Your task to perform on an android device: turn vacation reply on in the gmail app Image 0: 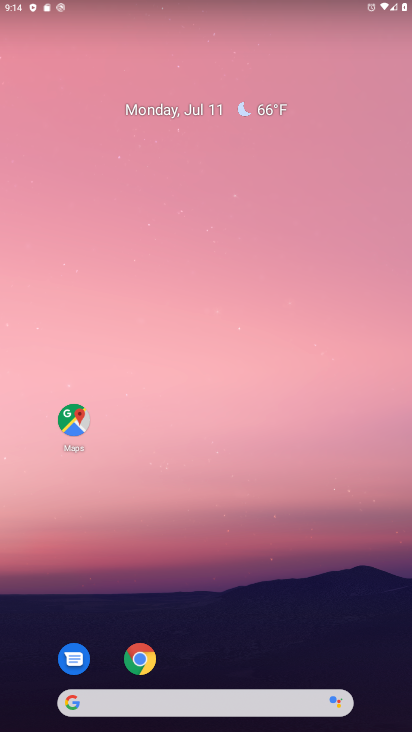
Step 0: drag from (364, 618) to (350, 160)
Your task to perform on an android device: turn vacation reply on in the gmail app Image 1: 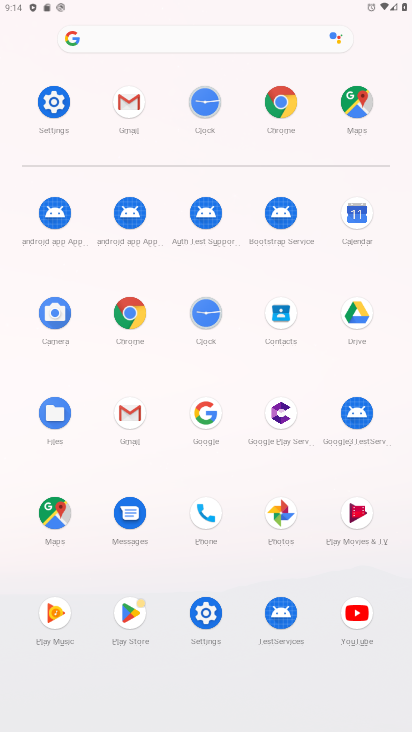
Step 1: click (136, 413)
Your task to perform on an android device: turn vacation reply on in the gmail app Image 2: 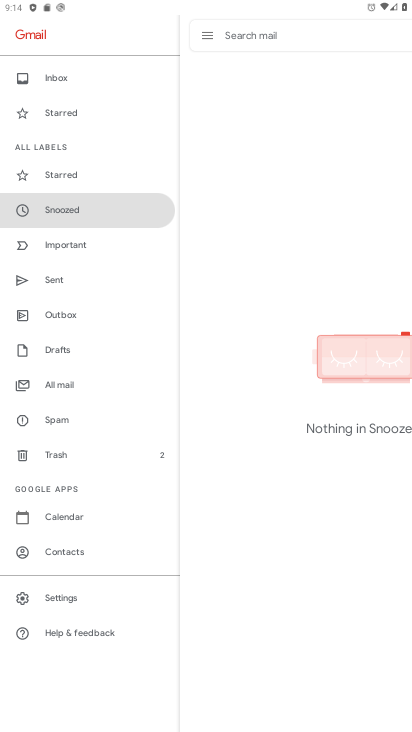
Step 2: click (75, 601)
Your task to perform on an android device: turn vacation reply on in the gmail app Image 3: 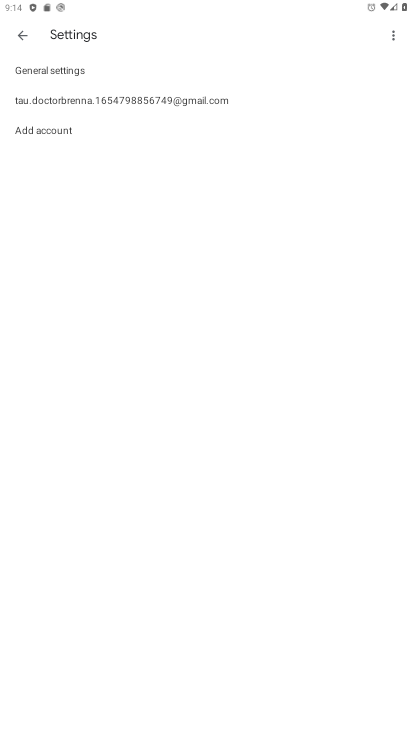
Step 3: click (111, 96)
Your task to perform on an android device: turn vacation reply on in the gmail app Image 4: 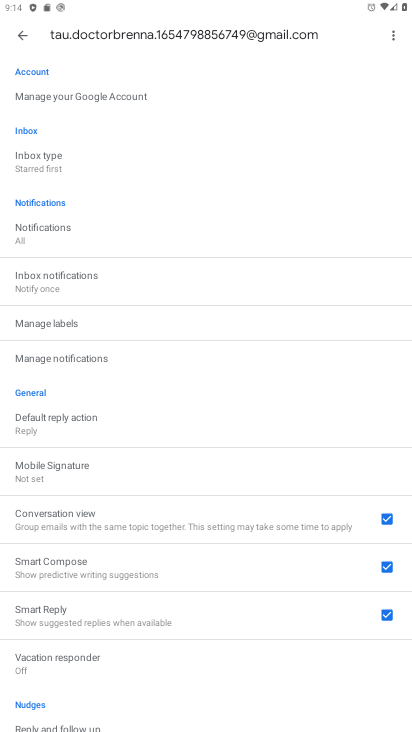
Step 4: drag from (263, 375) to (282, 286)
Your task to perform on an android device: turn vacation reply on in the gmail app Image 5: 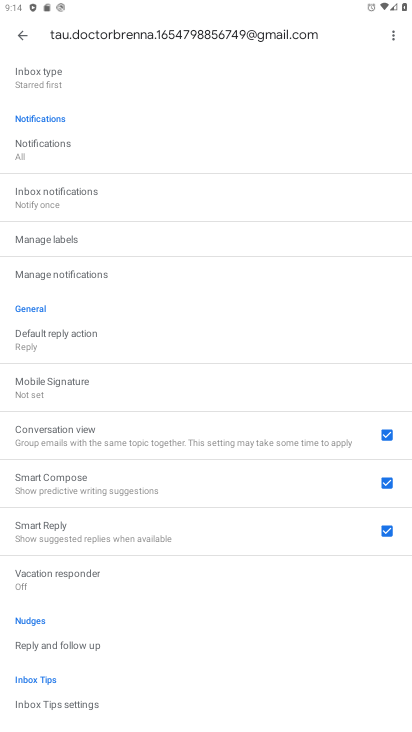
Step 5: drag from (286, 485) to (312, 372)
Your task to perform on an android device: turn vacation reply on in the gmail app Image 6: 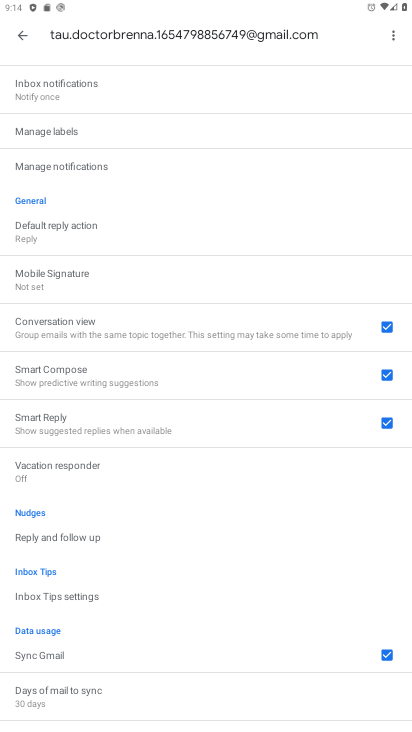
Step 6: drag from (290, 508) to (295, 368)
Your task to perform on an android device: turn vacation reply on in the gmail app Image 7: 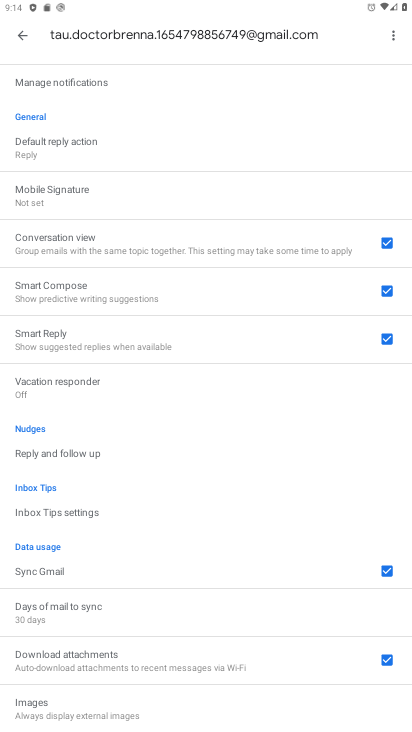
Step 7: drag from (266, 482) to (260, 328)
Your task to perform on an android device: turn vacation reply on in the gmail app Image 8: 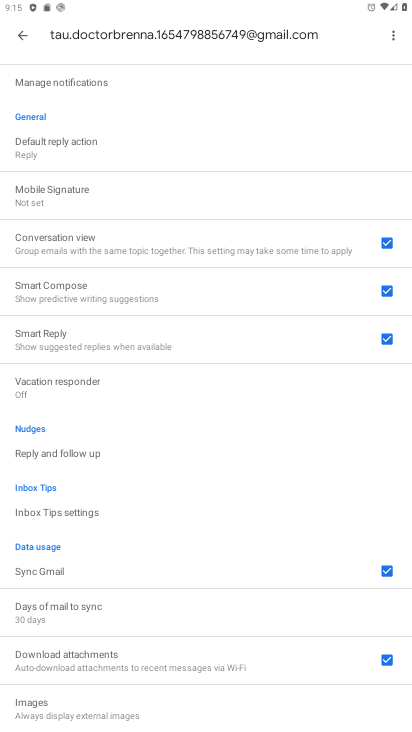
Step 8: click (170, 381)
Your task to perform on an android device: turn vacation reply on in the gmail app Image 9: 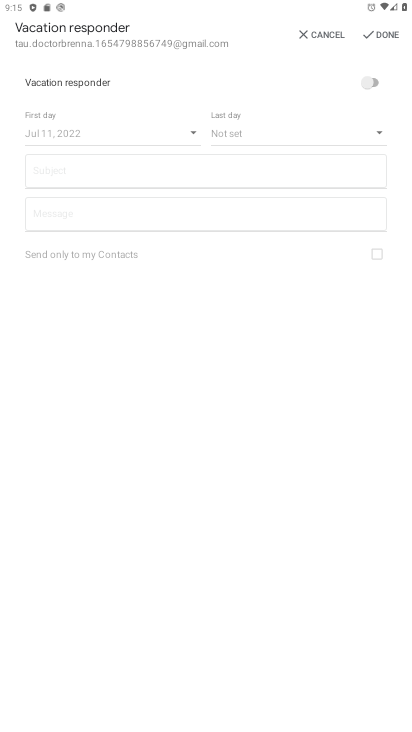
Step 9: click (363, 81)
Your task to perform on an android device: turn vacation reply on in the gmail app Image 10: 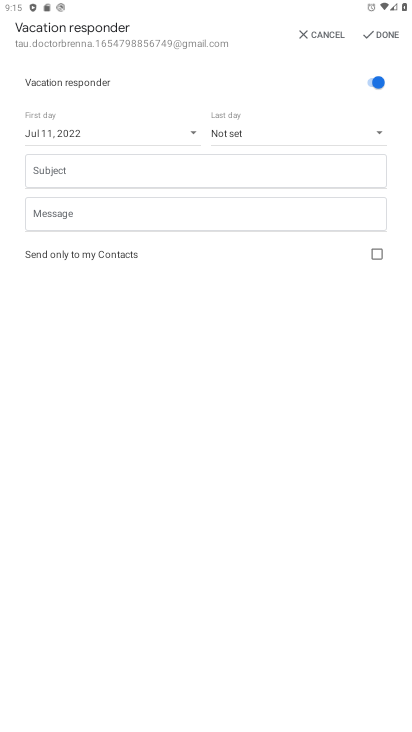
Step 10: task complete